Your task to perform on an android device: toggle location history Image 0: 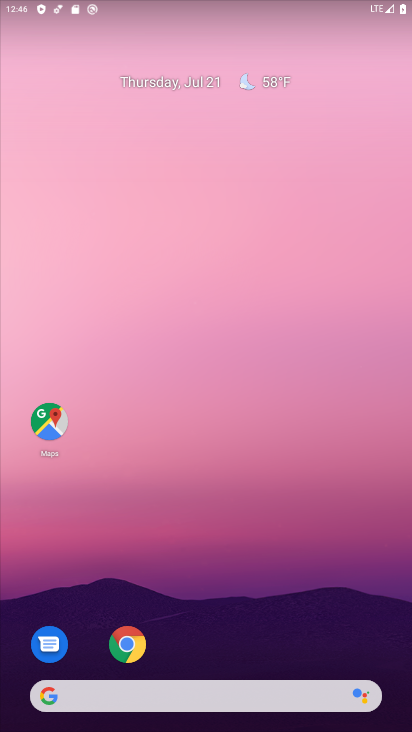
Step 0: drag from (391, 623) to (384, 155)
Your task to perform on an android device: toggle location history Image 1: 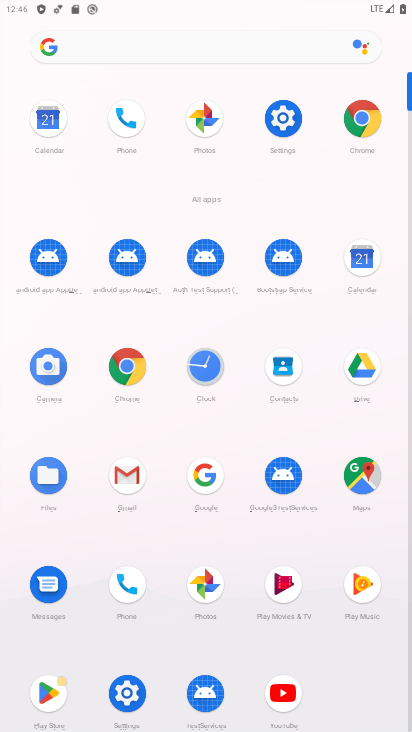
Step 1: click (288, 125)
Your task to perform on an android device: toggle location history Image 2: 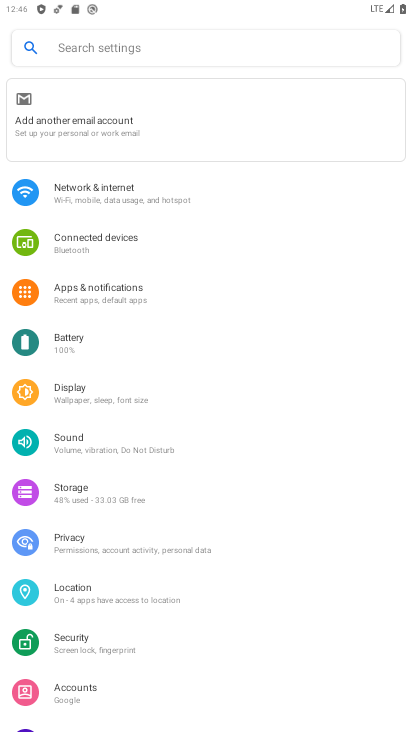
Step 2: drag from (325, 413) to (327, 316)
Your task to perform on an android device: toggle location history Image 3: 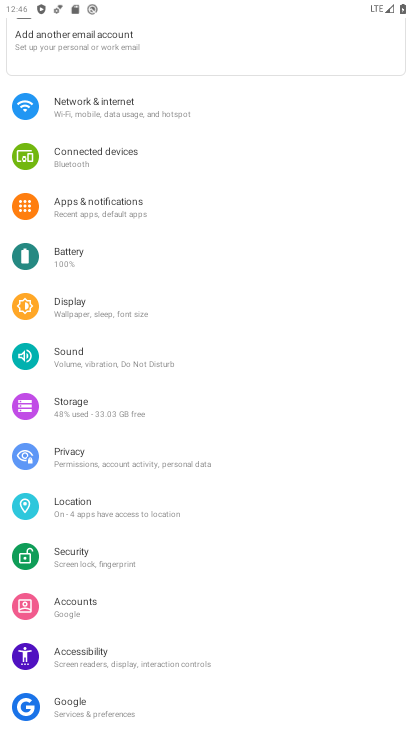
Step 3: drag from (333, 449) to (345, 366)
Your task to perform on an android device: toggle location history Image 4: 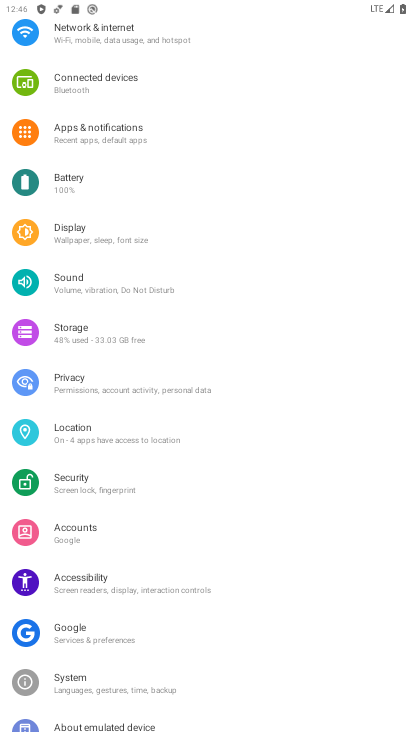
Step 4: drag from (363, 496) to (370, 398)
Your task to perform on an android device: toggle location history Image 5: 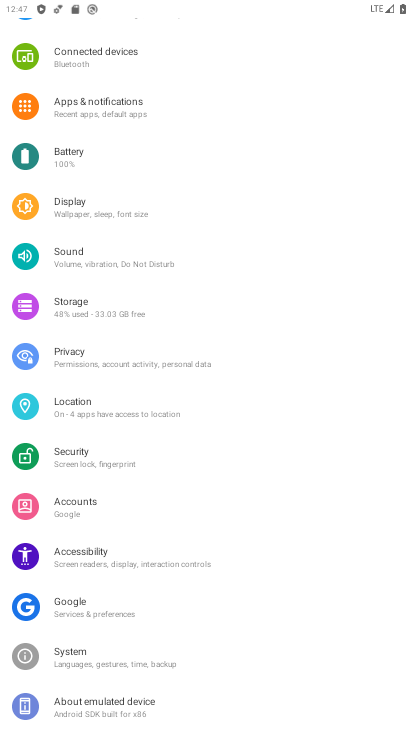
Step 5: drag from (367, 500) to (374, 422)
Your task to perform on an android device: toggle location history Image 6: 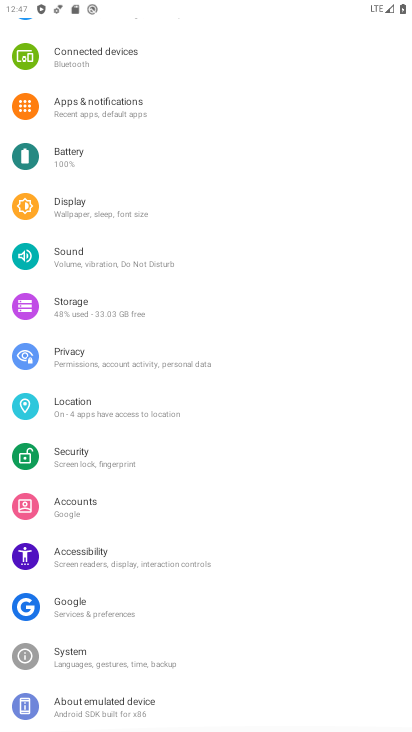
Step 6: drag from (369, 331) to (369, 375)
Your task to perform on an android device: toggle location history Image 7: 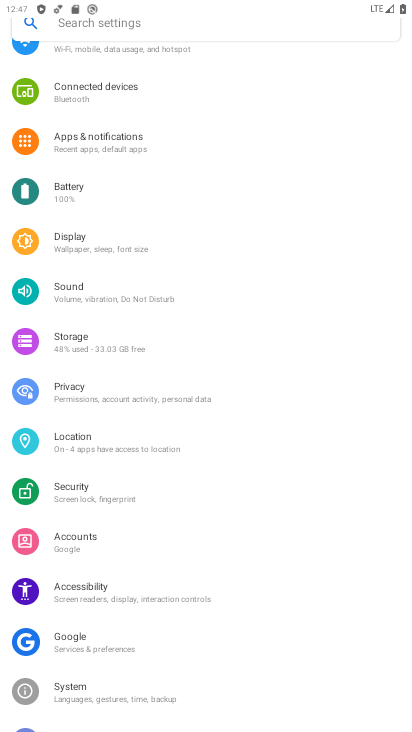
Step 7: drag from (360, 311) to (361, 370)
Your task to perform on an android device: toggle location history Image 8: 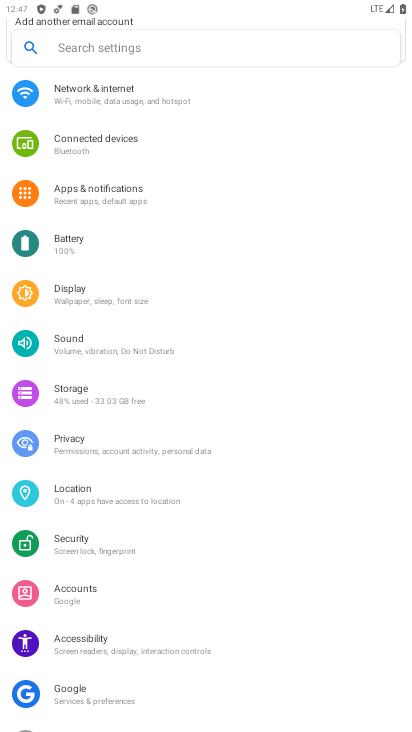
Step 8: drag from (352, 296) to (351, 371)
Your task to perform on an android device: toggle location history Image 9: 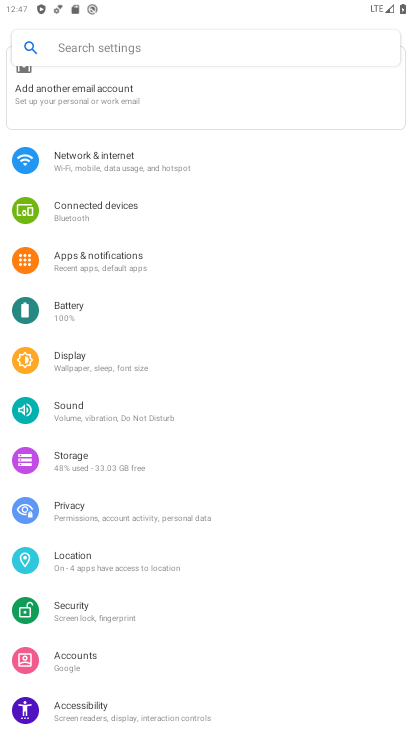
Step 9: click (206, 569)
Your task to perform on an android device: toggle location history Image 10: 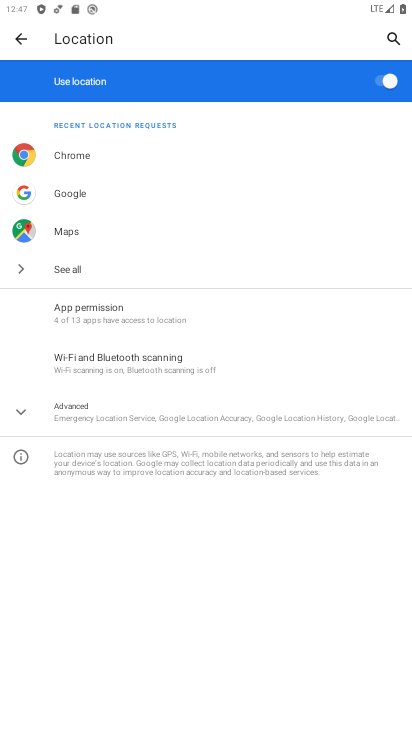
Step 10: click (268, 415)
Your task to perform on an android device: toggle location history Image 11: 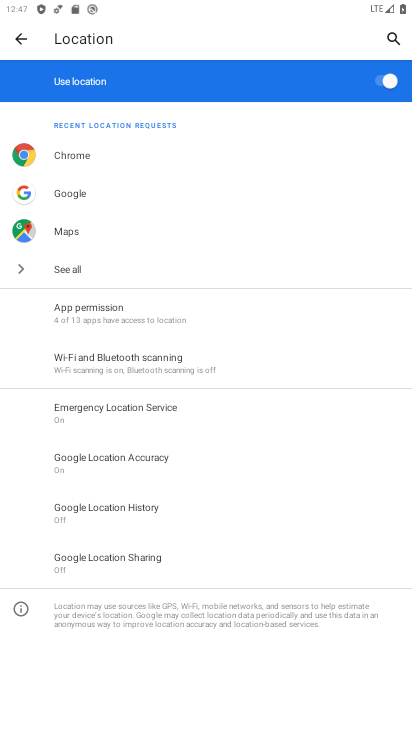
Step 11: click (148, 519)
Your task to perform on an android device: toggle location history Image 12: 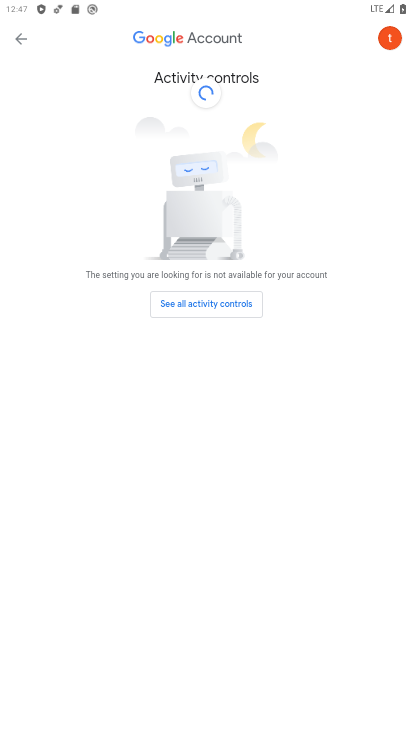
Step 12: click (241, 304)
Your task to perform on an android device: toggle location history Image 13: 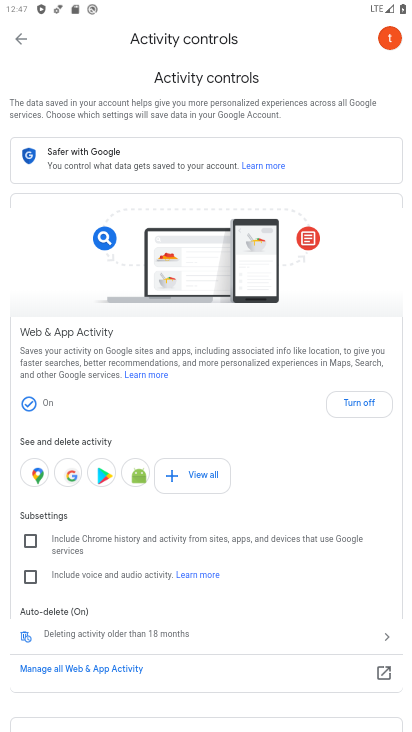
Step 13: click (363, 400)
Your task to perform on an android device: toggle location history Image 14: 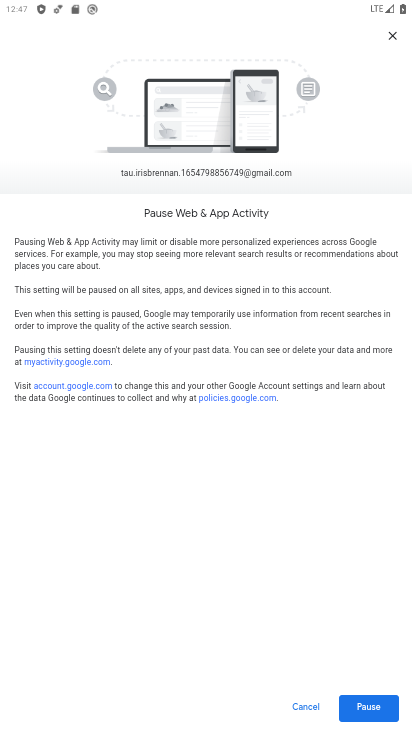
Step 14: drag from (318, 487) to (327, 405)
Your task to perform on an android device: toggle location history Image 15: 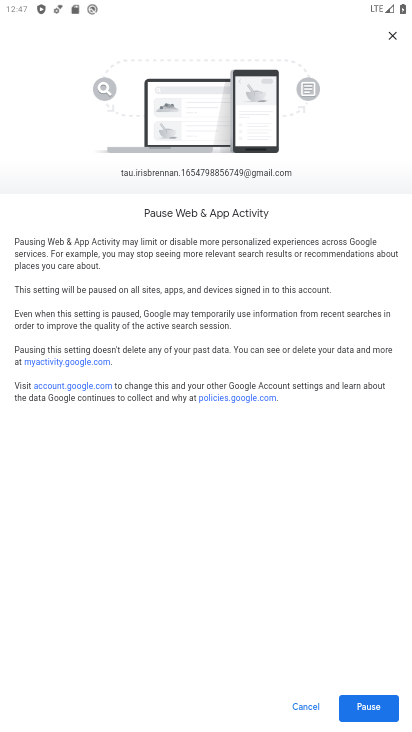
Step 15: click (370, 716)
Your task to perform on an android device: toggle location history Image 16: 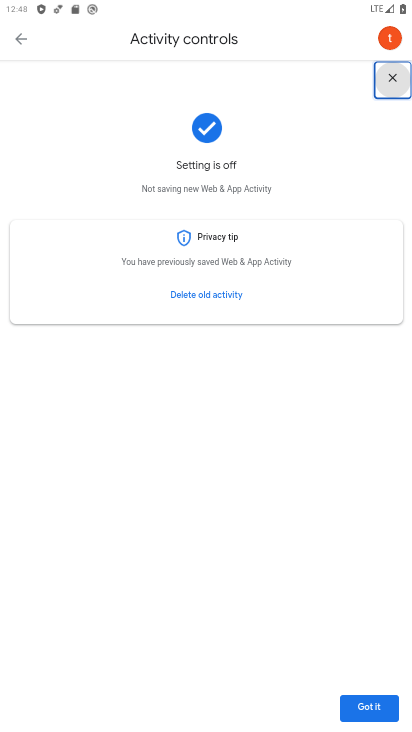
Step 16: task complete